Your task to perform on an android device: check storage Image 0: 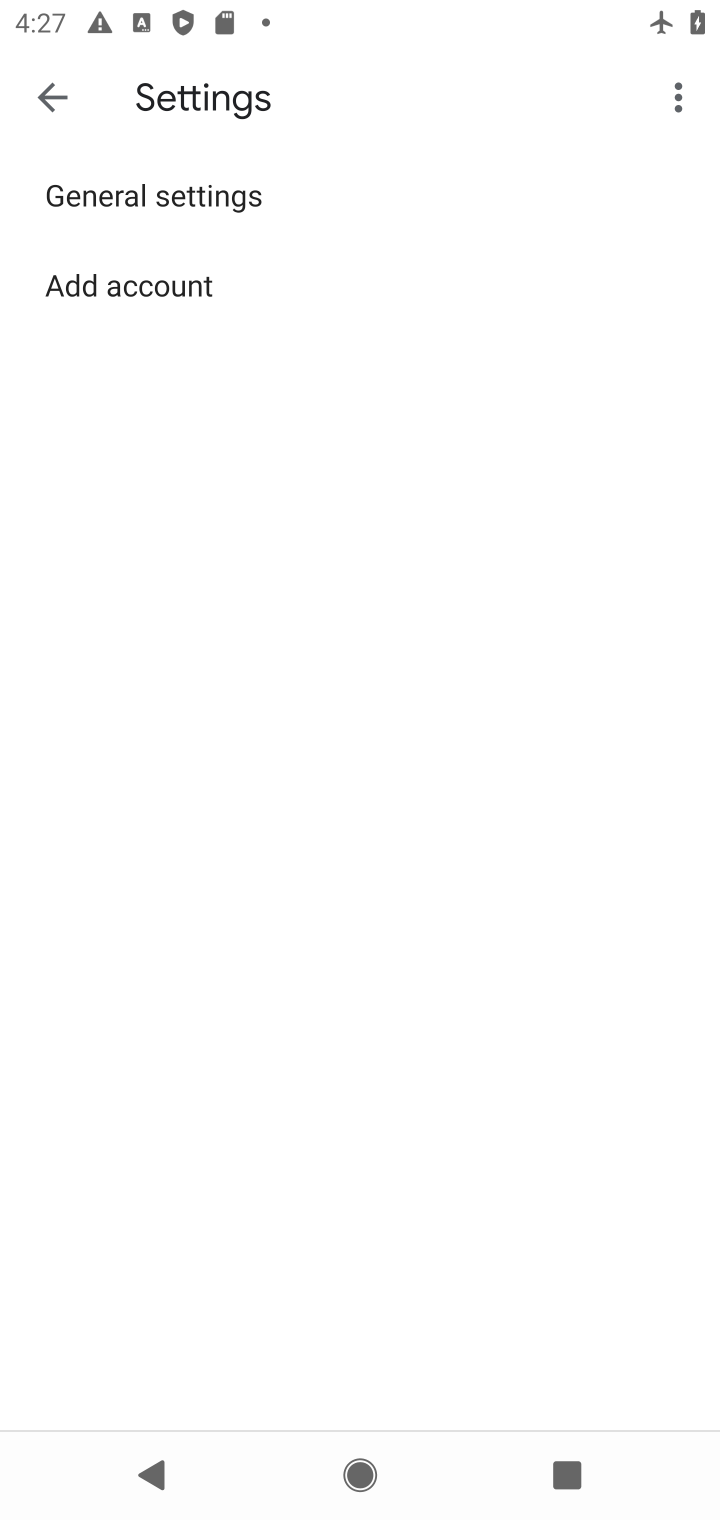
Step 0: press home button
Your task to perform on an android device: check storage Image 1: 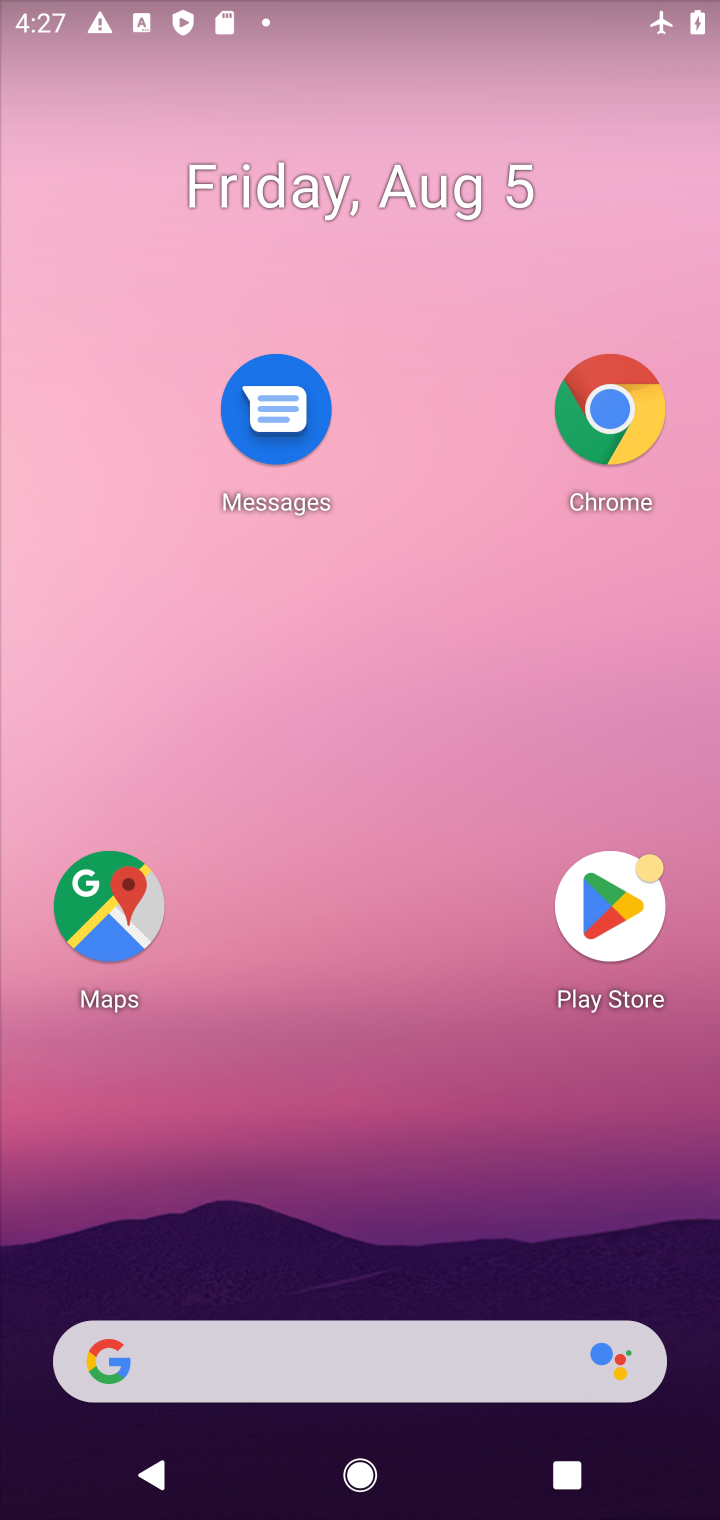
Step 1: drag from (236, 1163) to (332, 361)
Your task to perform on an android device: check storage Image 2: 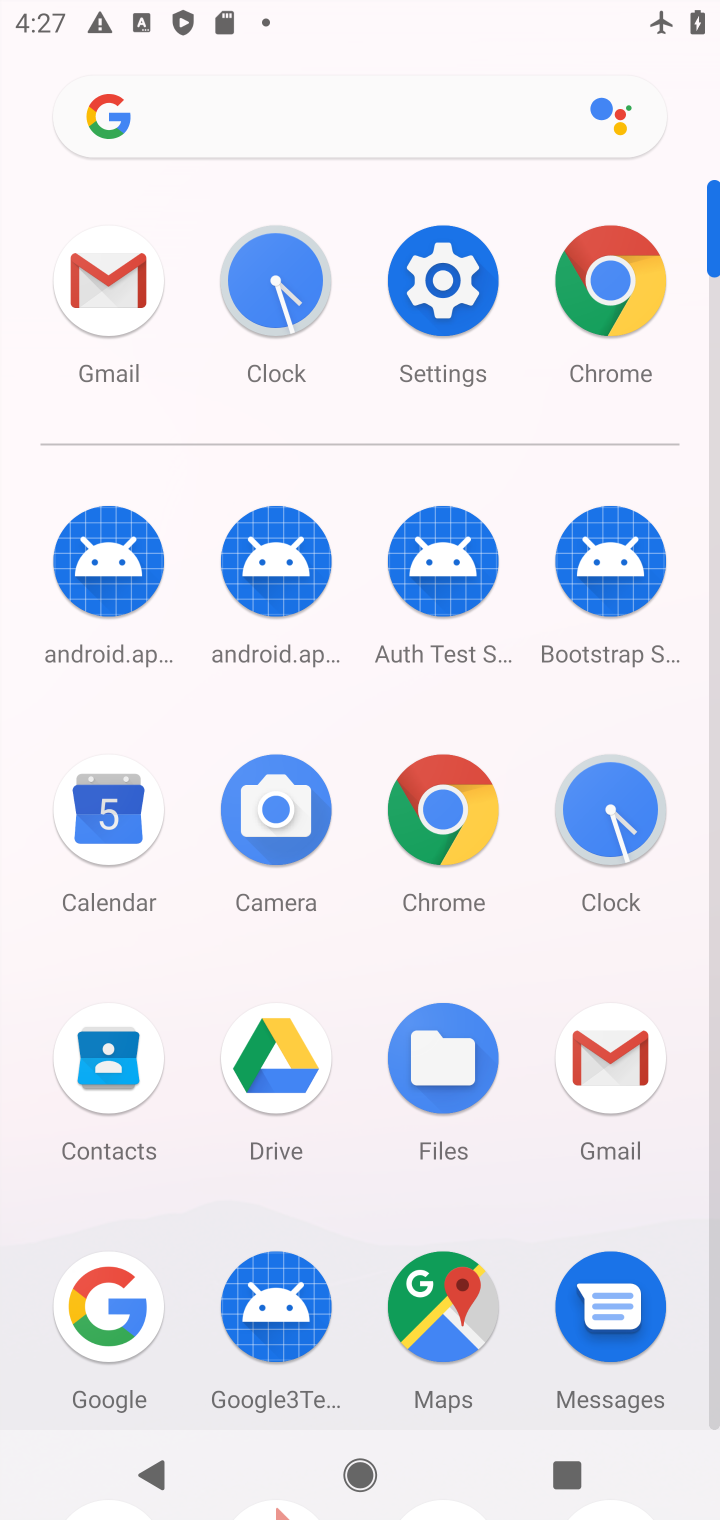
Step 2: click (442, 322)
Your task to perform on an android device: check storage Image 3: 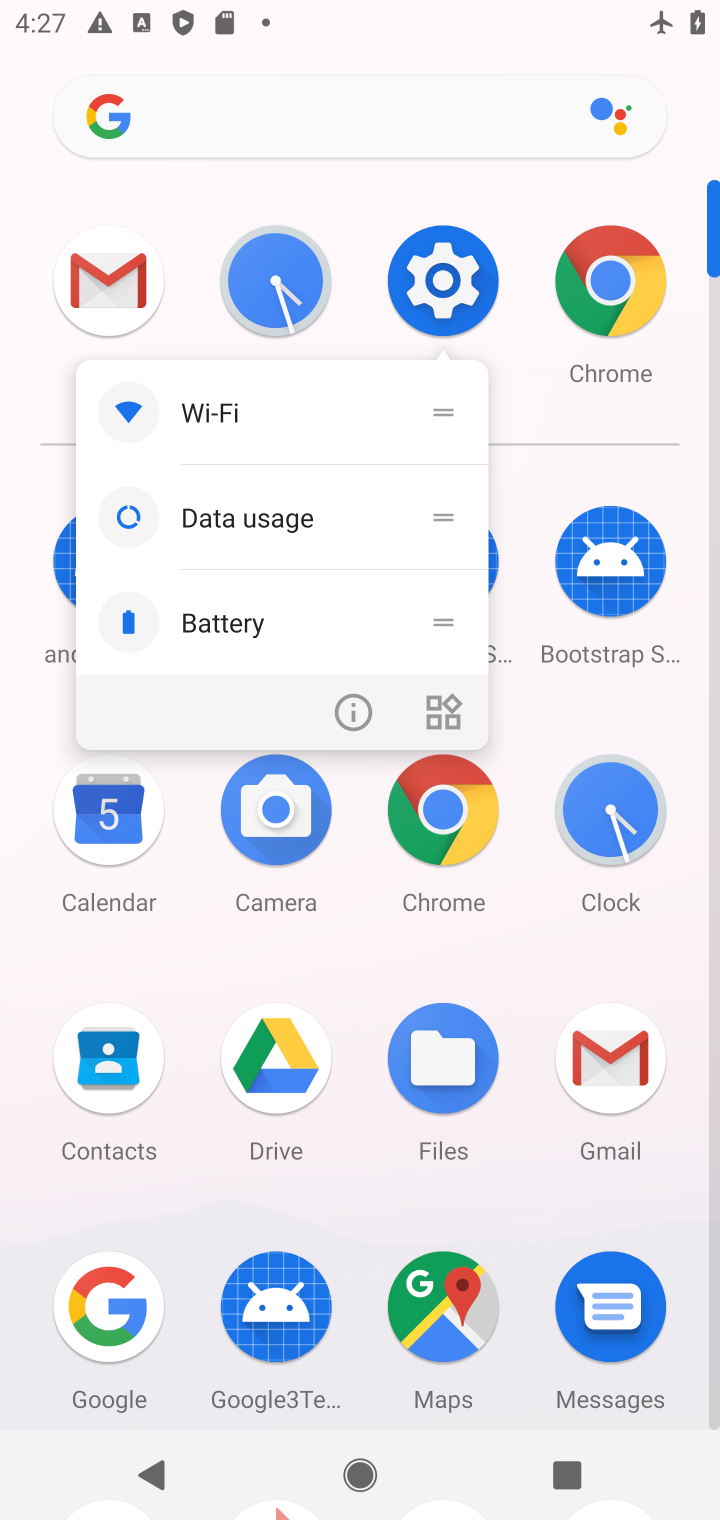
Step 3: click (435, 232)
Your task to perform on an android device: check storage Image 4: 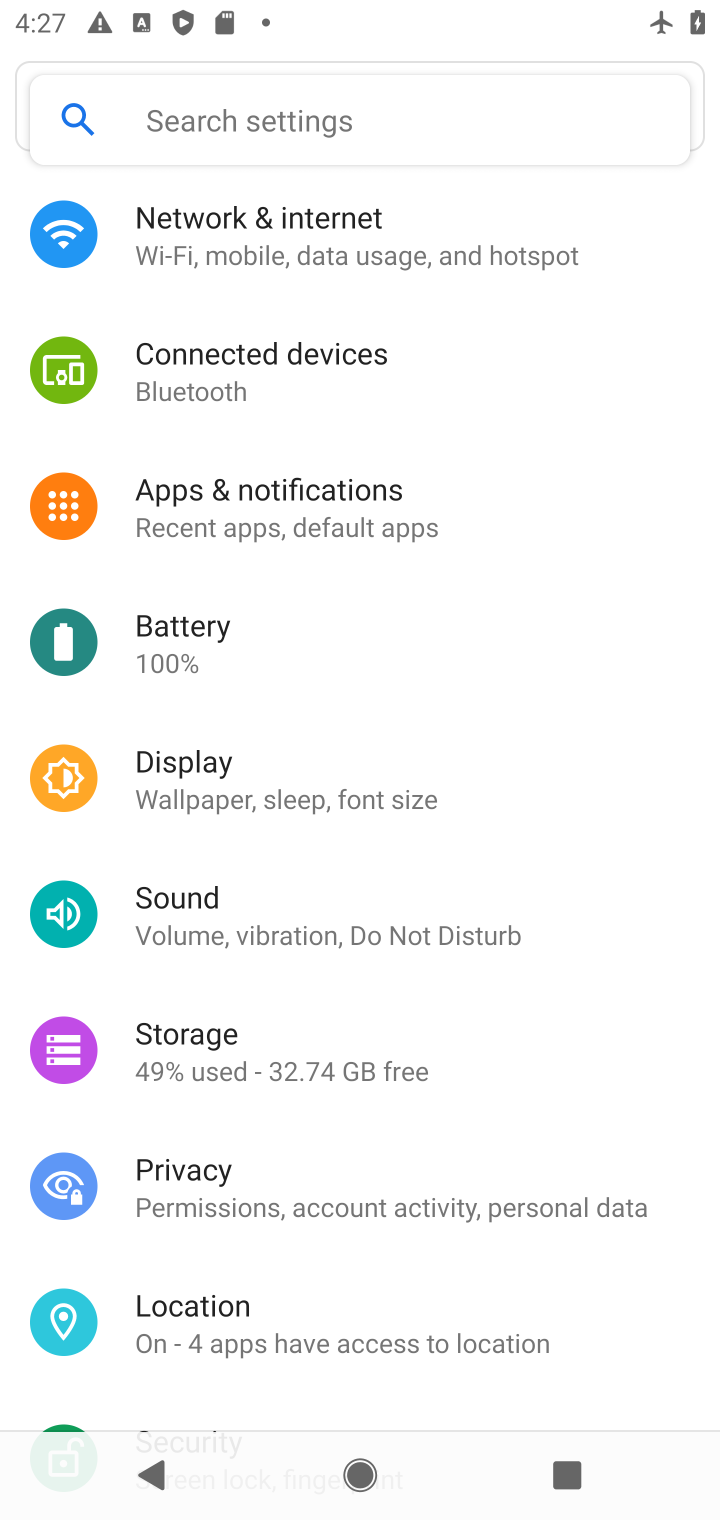
Step 4: click (309, 1073)
Your task to perform on an android device: check storage Image 5: 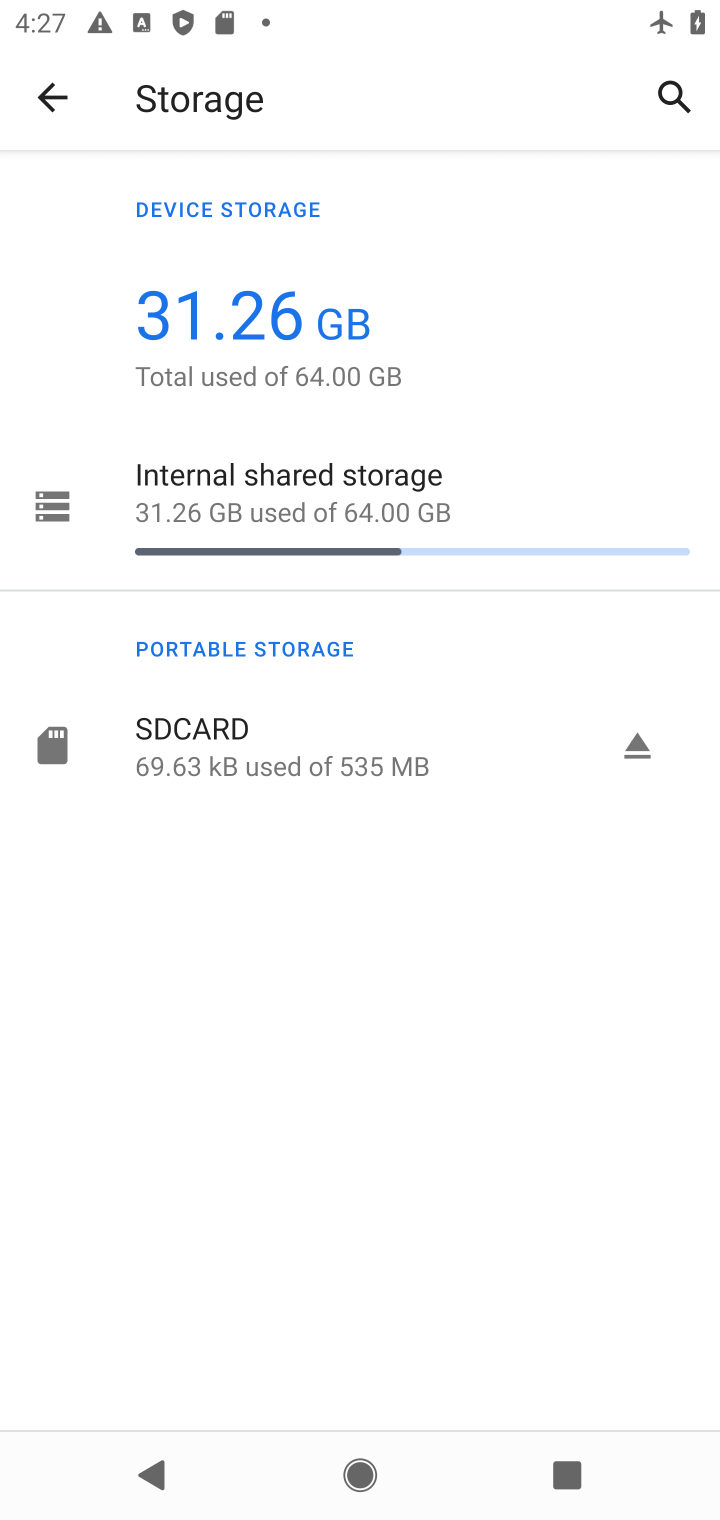
Step 5: click (322, 562)
Your task to perform on an android device: check storage Image 6: 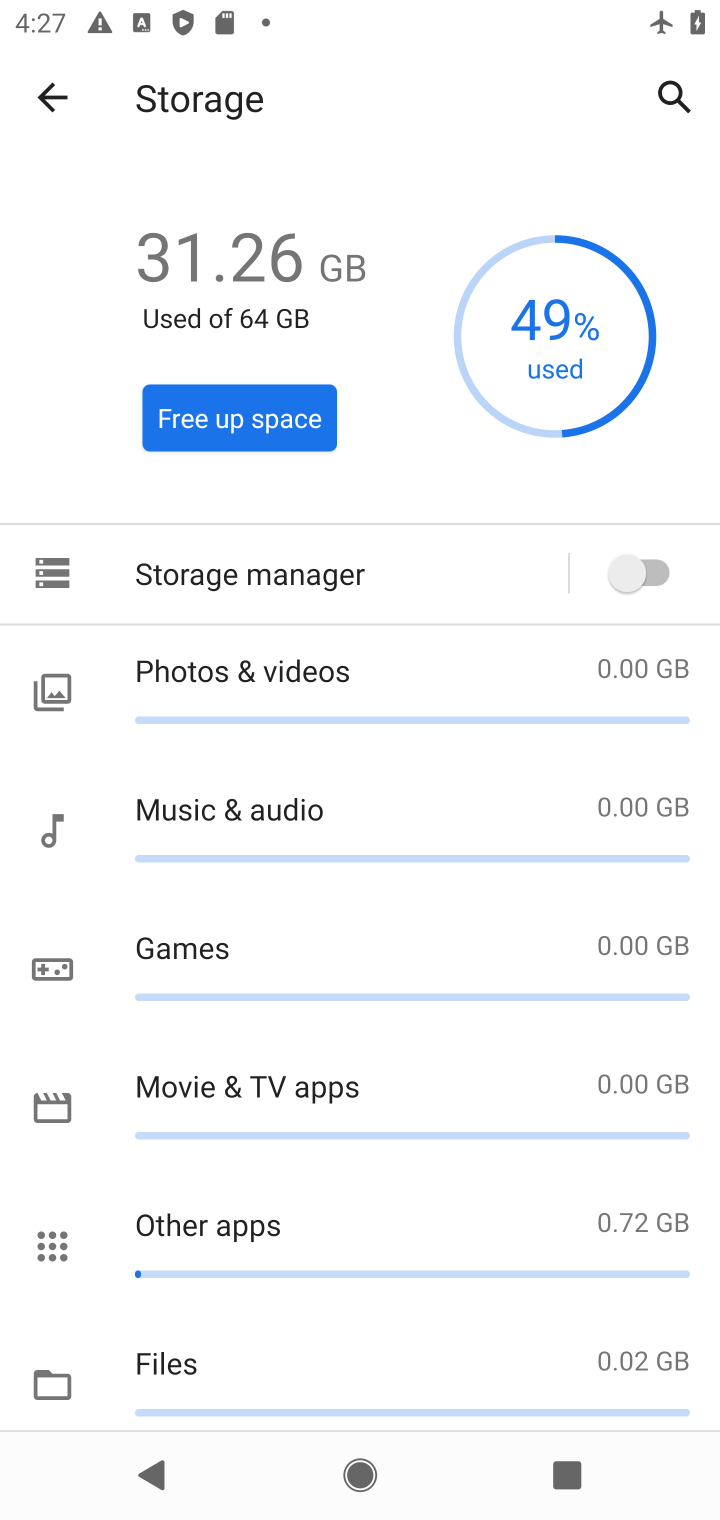
Step 6: task complete